Your task to perform on an android device: see tabs open on other devices in the chrome app Image 0: 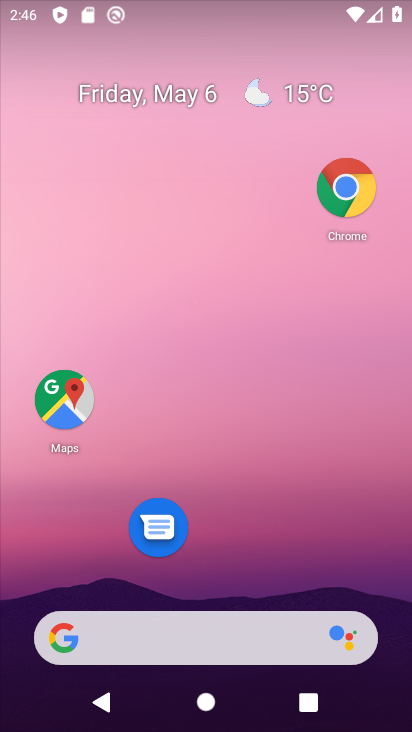
Step 0: click (355, 227)
Your task to perform on an android device: see tabs open on other devices in the chrome app Image 1: 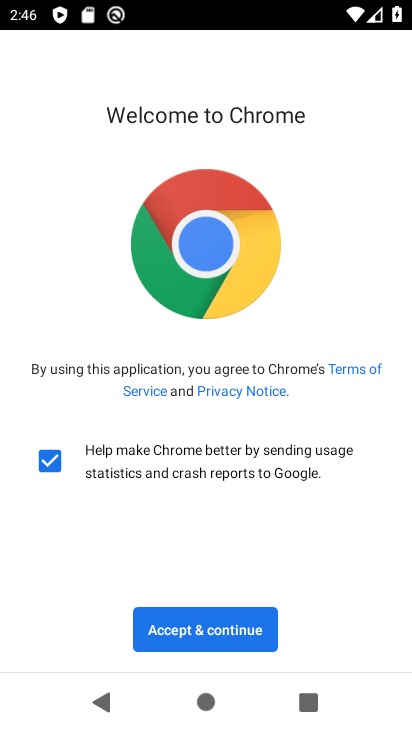
Step 1: click (180, 643)
Your task to perform on an android device: see tabs open on other devices in the chrome app Image 2: 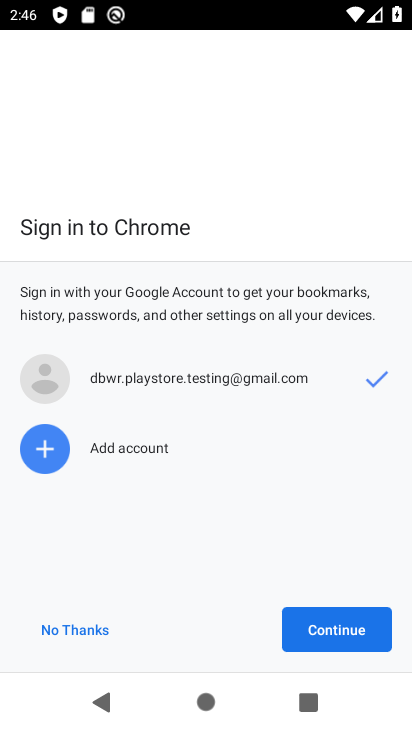
Step 2: click (316, 637)
Your task to perform on an android device: see tabs open on other devices in the chrome app Image 3: 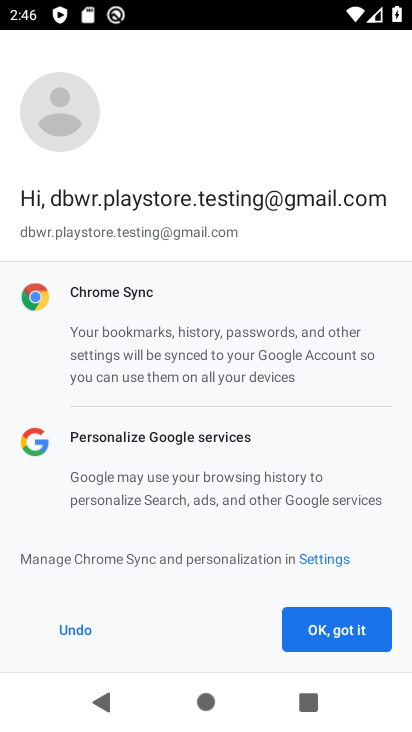
Step 3: click (316, 637)
Your task to perform on an android device: see tabs open on other devices in the chrome app Image 4: 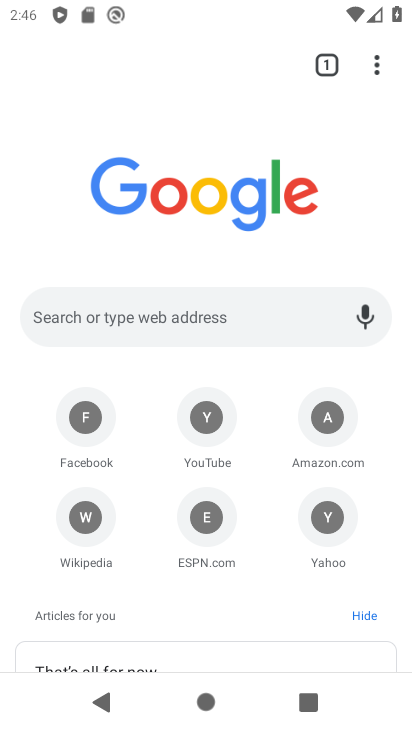
Step 4: click (376, 66)
Your task to perform on an android device: see tabs open on other devices in the chrome app Image 5: 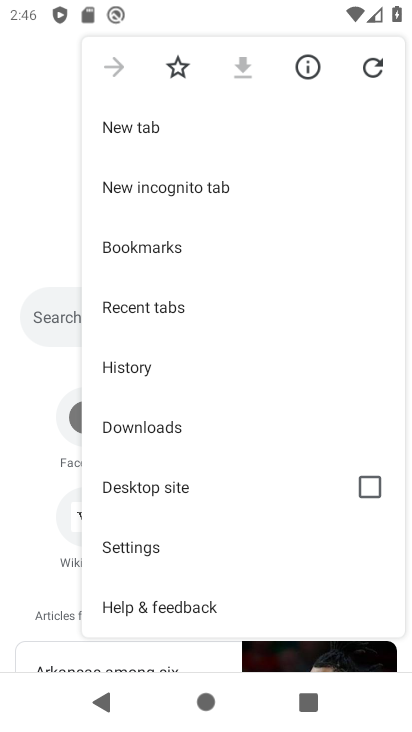
Step 5: click (150, 314)
Your task to perform on an android device: see tabs open on other devices in the chrome app Image 6: 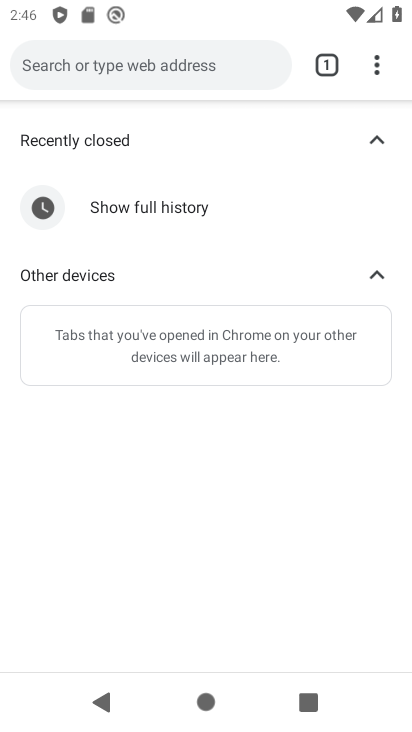
Step 6: task complete